Your task to perform on an android device: What is the recent news? Image 0: 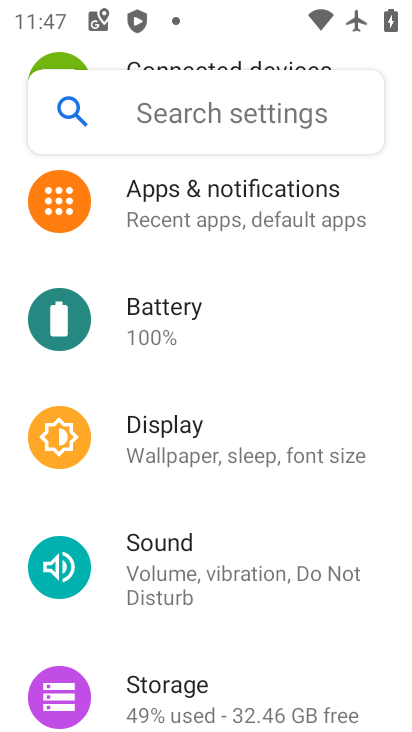
Step 0: press home button
Your task to perform on an android device: What is the recent news? Image 1: 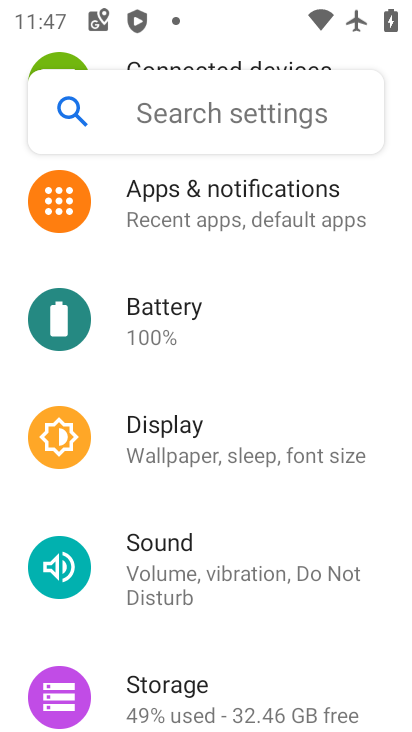
Step 1: click (247, 623)
Your task to perform on an android device: What is the recent news? Image 2: 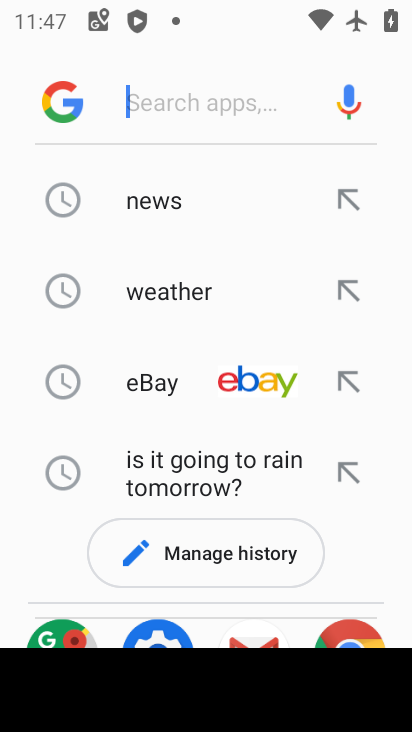
Step 2: press home button
Your task to perform on an android device: What is the recent news? Image 3: 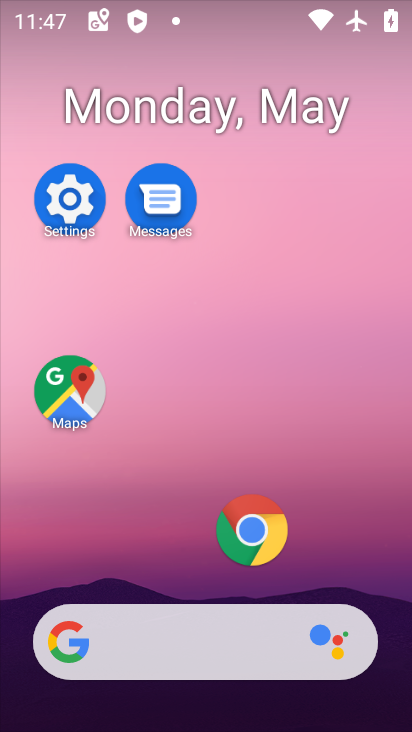
Step 3: drag from (123, 548) to (300, 132)
Your task to perform on an android device: What is the recent news? Image 4: 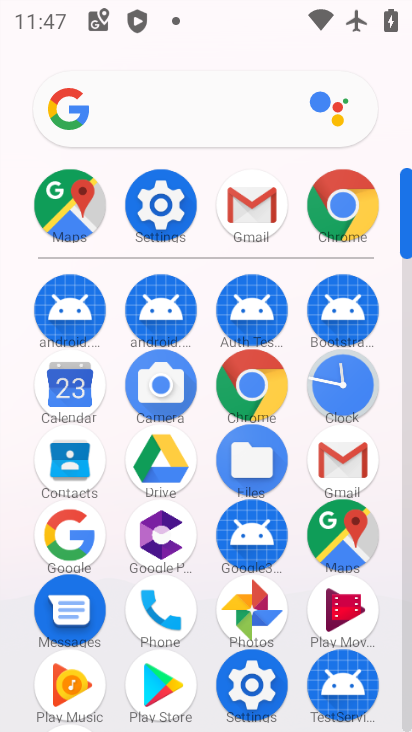
Step 4: click (202, 98)
Your task to perform on an android device: What is the recent news? Image 5: 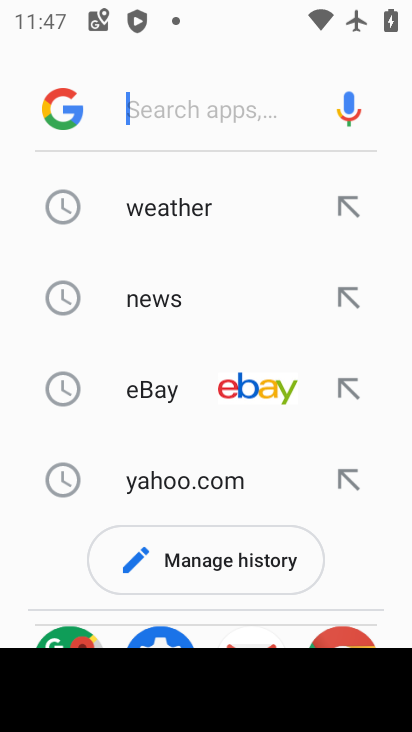
Step 5: click (80, 110)
Your task to perform on an android device: What is the recent news? Image 6: 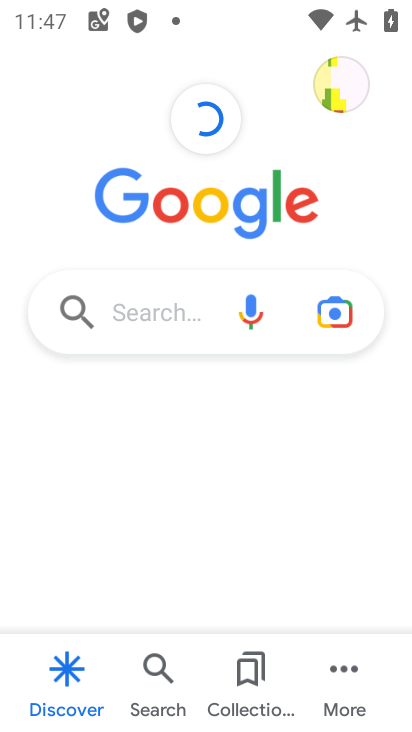
Step 6: task complete